Your task to perform on an android device: turn on priority inbox in the gmail app Image 0: 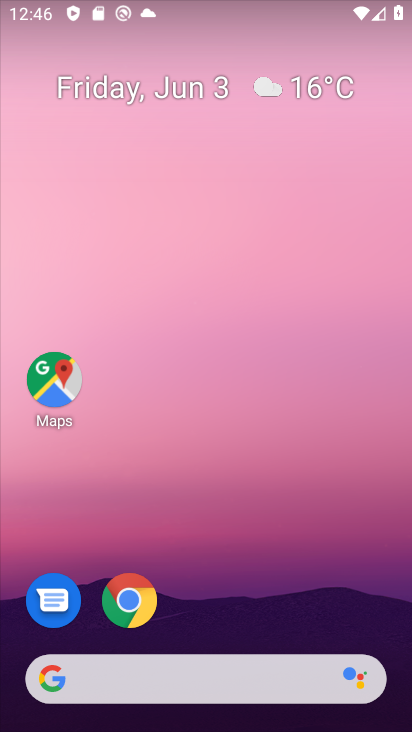
Step 0: drag from (206, 594) to (249, 96)
Your task to perform on an android device: turn on priority inbox in the gmail app Image 1: 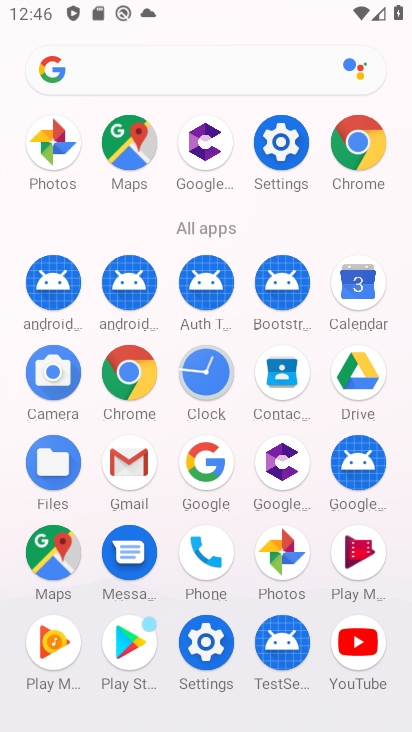
Step 1: click (114, 476)
Your task to perform on an android device: turn on priority inbox in the gmail app Image 2: 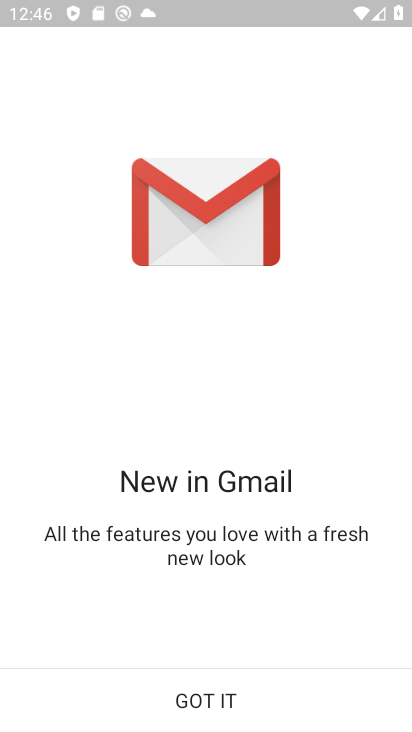
Step 2: click (204, 714)
Your task to perform on an android device: turn on priority inbox in the gmail app Image 3: 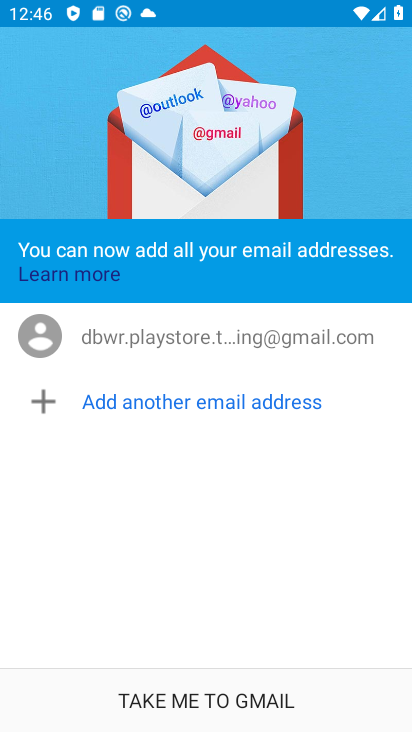
Step 3: click (221, 692)
Your task to perform on an android device: turn on priority inbox in the gmail app Image 4: 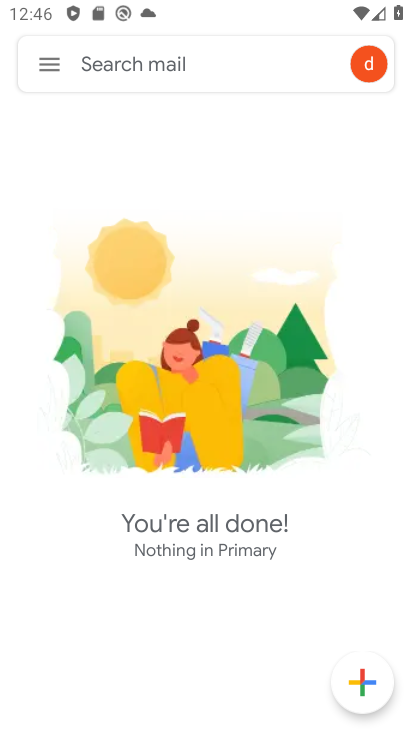
Step 4: click (44, 60)
Your task to perform on an android device: turn on priority inbox in the gmail app Image 5: 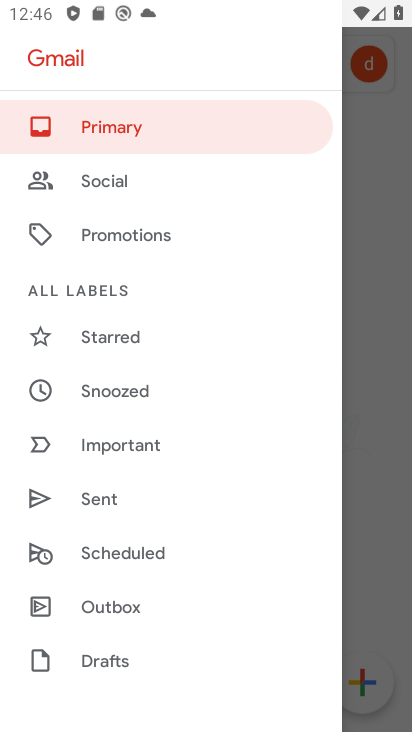
Step 5: drag from (93, 606) to (183, 249)
Your task to perform on an android device: turn on priority inbox in the gmail app Image 6: 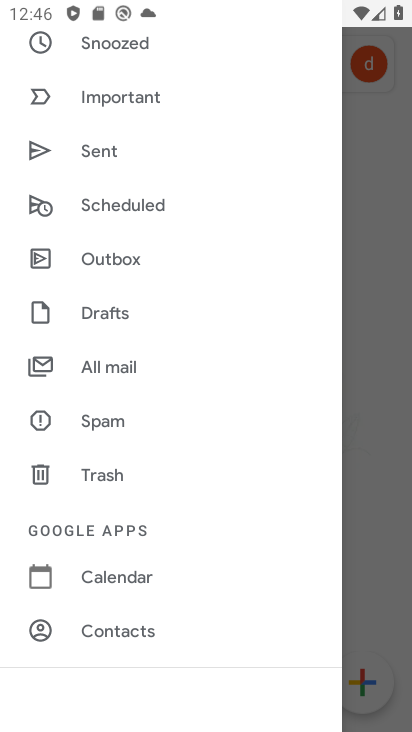
Step 6: drag from (176, 624) to (196, 357)
Your task to perform on an android device: turn on priority inbox in the gmail app Image 7: 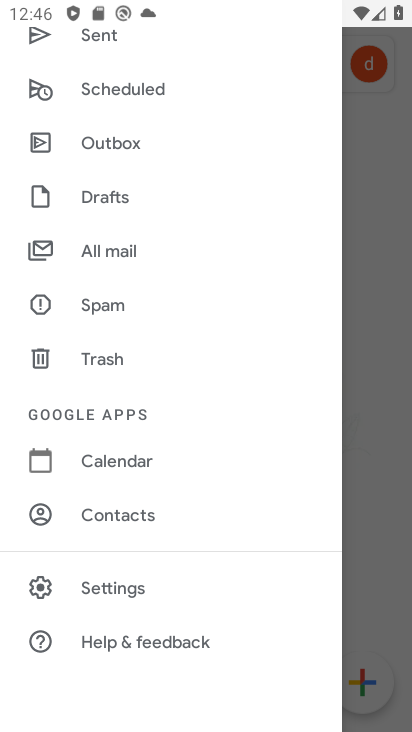
Step 7: click (123, 603)
Your task to perform on an android device: turn on priority inbox in the gmail app Image 8: 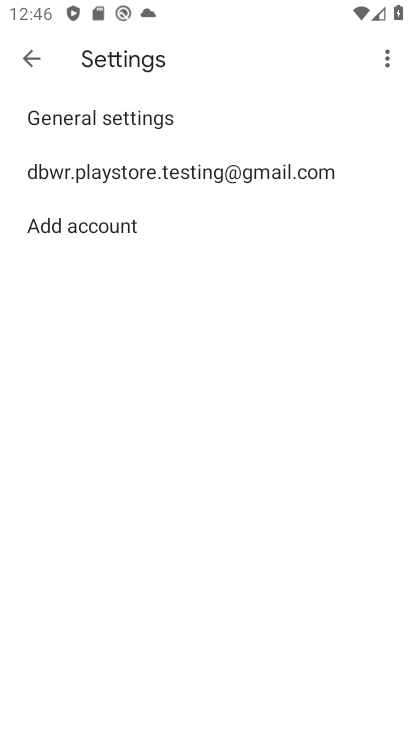
Step 8: click (175, 175)
Your task to perform on an android device: turn on priority inbox in the gmail app Image 9: 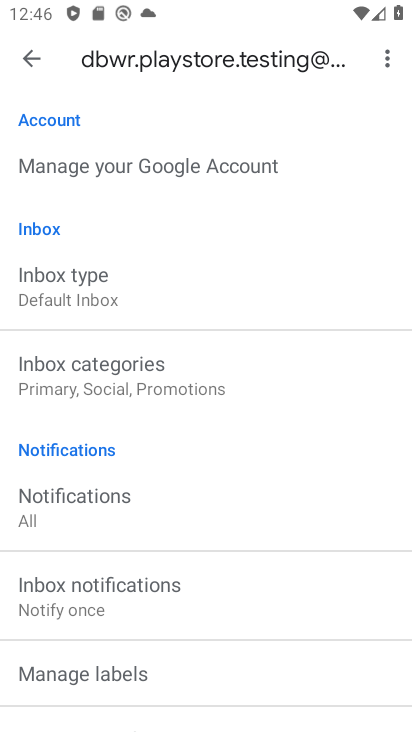
Step 9: click (80, 302)
Your task to perform on an android device: turn on priority inbox in the gmail app Image 10: 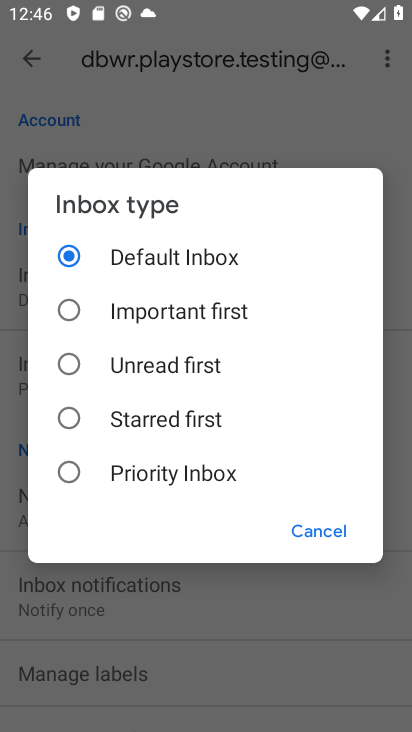
Step 10: click (70, 474)
Your task to perform on an android device: turn on priority inbox in the gmail app Image 11: 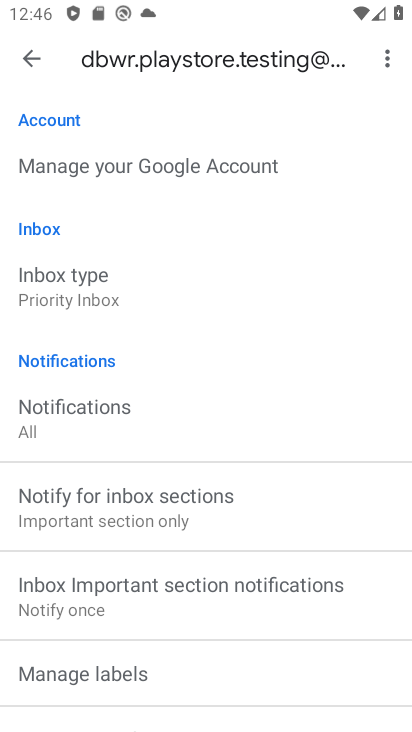
Step 11: task complete